Your task to perform on an android device: Open network settings Image 0: 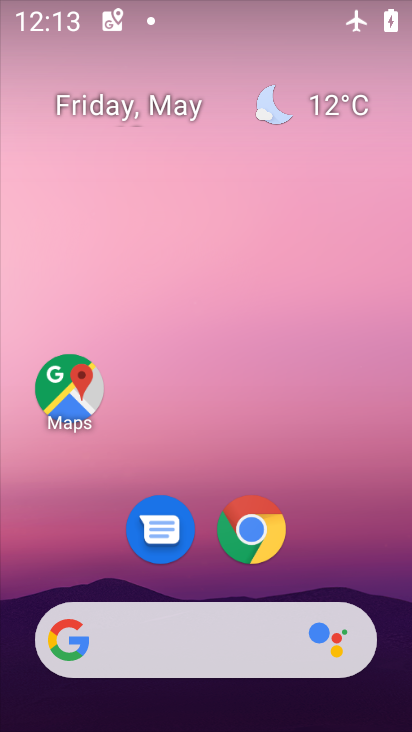
Step 0: drag from (355, 380) to (335, 260)
Your task to perform on an android device: Open network settings Image 1: 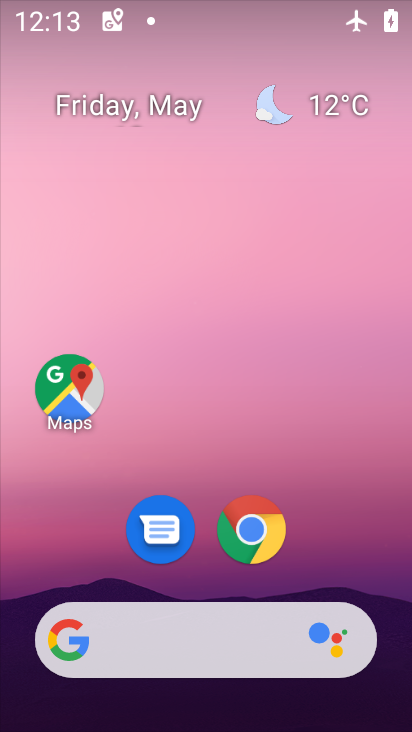
Step 1: drag from (315, 431) to (281, 187)
Your task to perform on an android device: Open network settings Image 2: 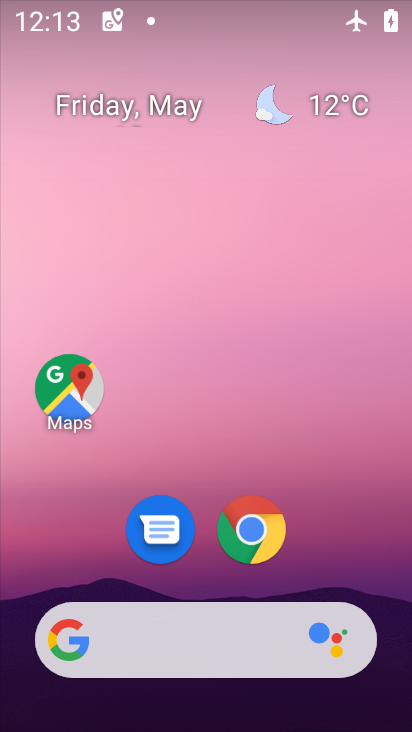
Step 2: drag from (311, 490) to (287, 242)
Your task to perform on an android device: Open network settings Image 3: 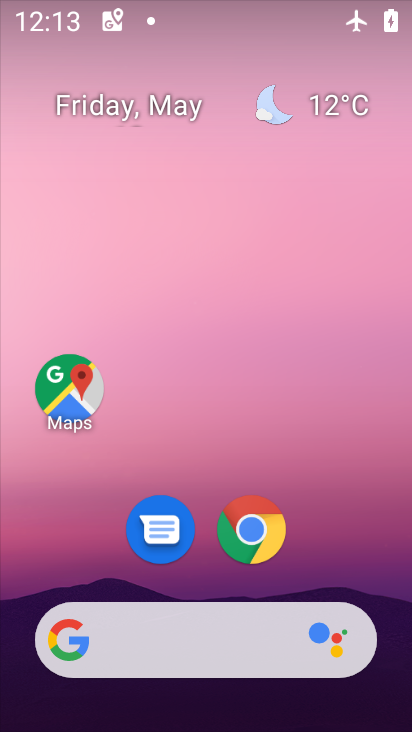
Step 3: drag from (308, 543) to (257, 171)
Your task to perform on an android device: Open network settings Image 4: 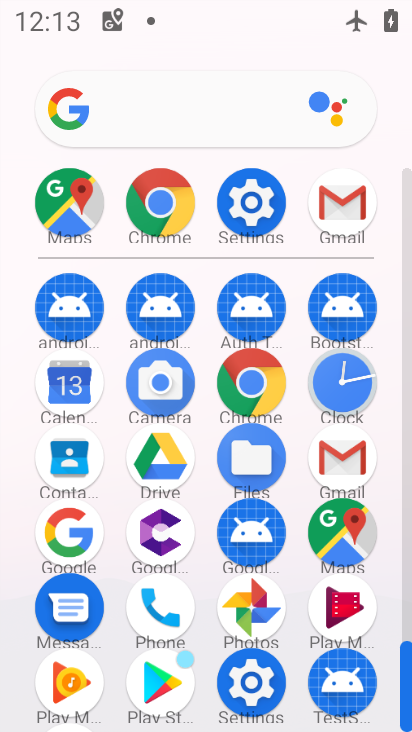
Step 4: click (237, 193)
Your task to perform on an android device: Open network settings Image 5: 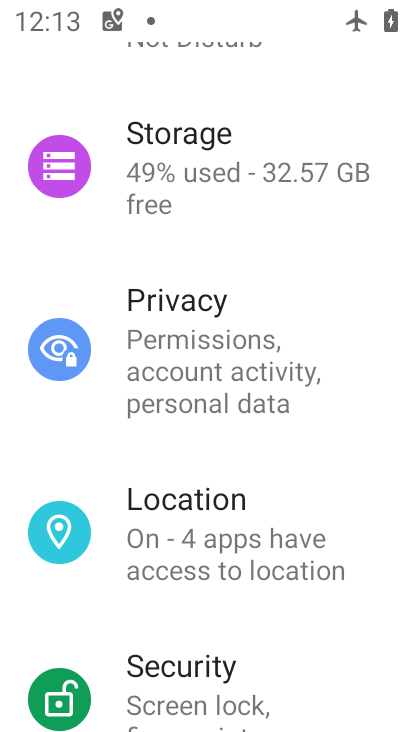
Step 5: drag from (221, 172) to (203, 637)
Your task to perform on an android device: Open network settings Image 6: 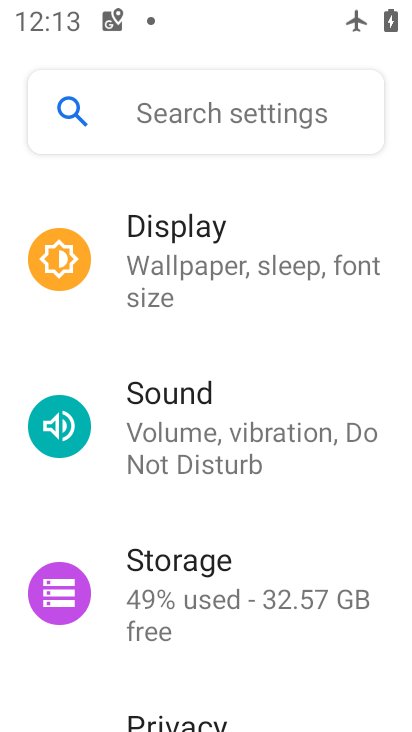
Step 6: drag from (202, 191) to (185, 659)
Your task to perform on an android device: Open network settings Image 7: 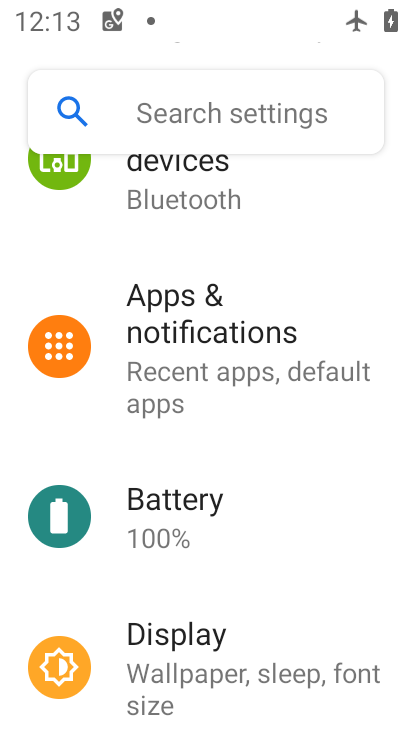
Step 7: drag from (197, 204) to (222, 686)
Your task to perform on an android device: Open network settings Image 8: 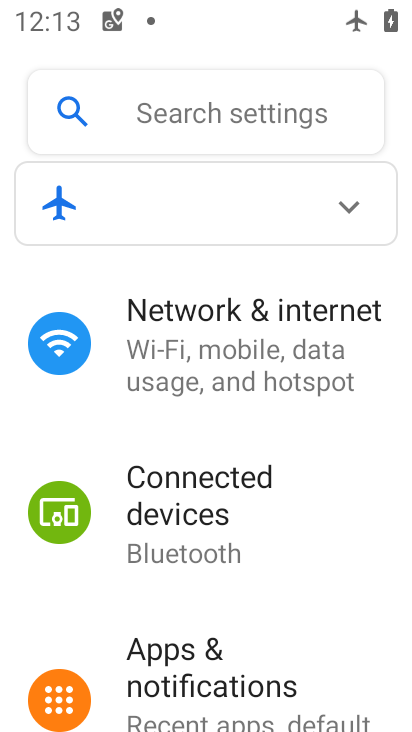
Step 8: click (204, 313)
Your task to perform on an android device: Open network settings Image 9: 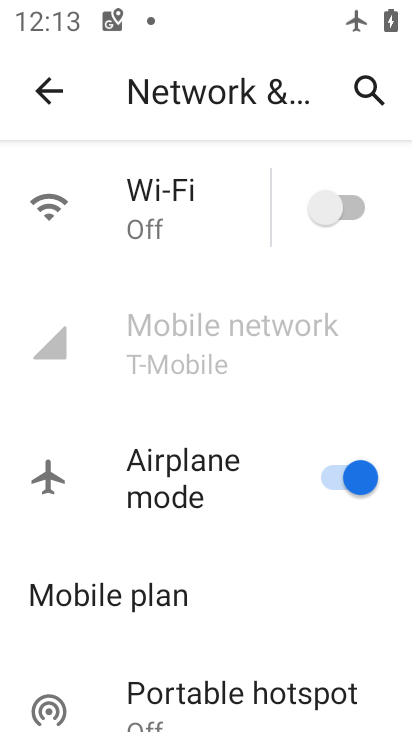
Step 9: task complete